Your task to perform on an android device: Search for Italian restaurants on Maps Image 0: 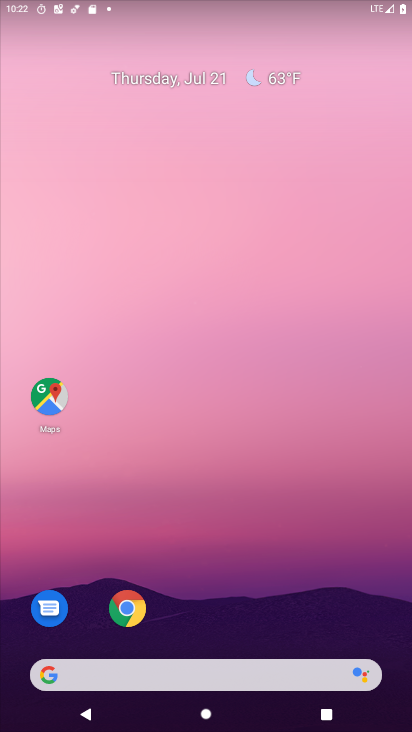
Step 0: drag from (189, 624) to (255, 146)
Your task to perform on an android device: Search for Italian restaurants on Maps Image 1: 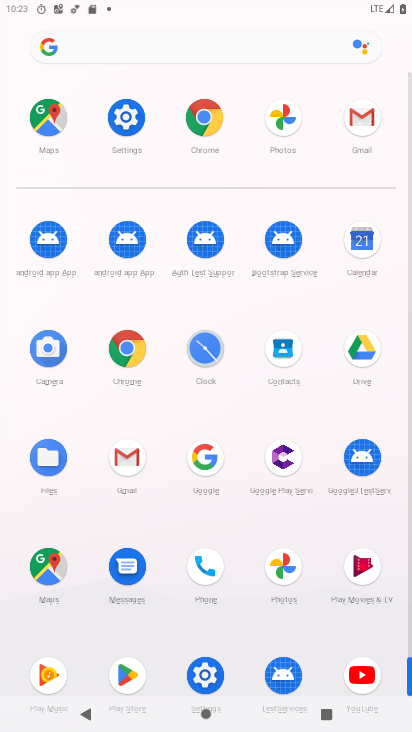
Step 1: click (48, 577)
Your task to perform on an android device: Search for Italian restaurants on Maps Image 2: 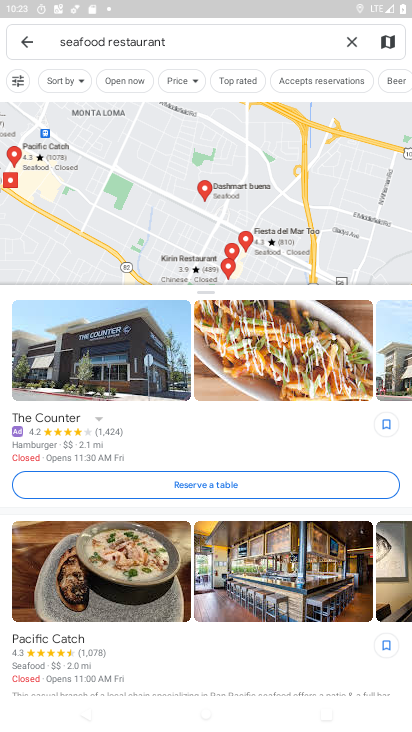
Step 2: click (346, 44)
Your task to perform on an android device: Search for Italian restaurants on Maps Image 3: 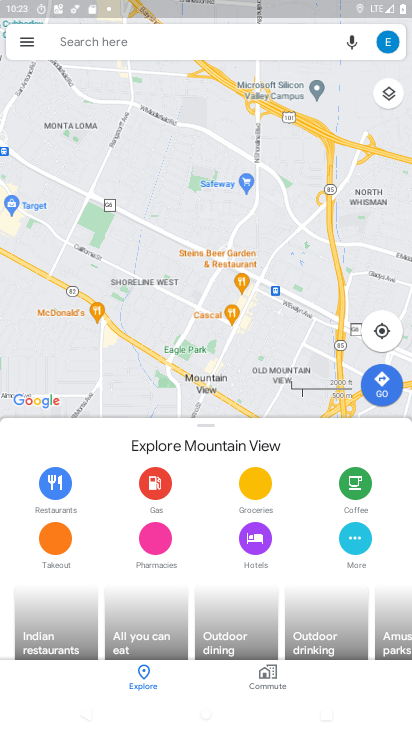
Step 3: click (262, 44)
Your task to perform on an android device: Search for Italian restaurants on Maps Image 4: 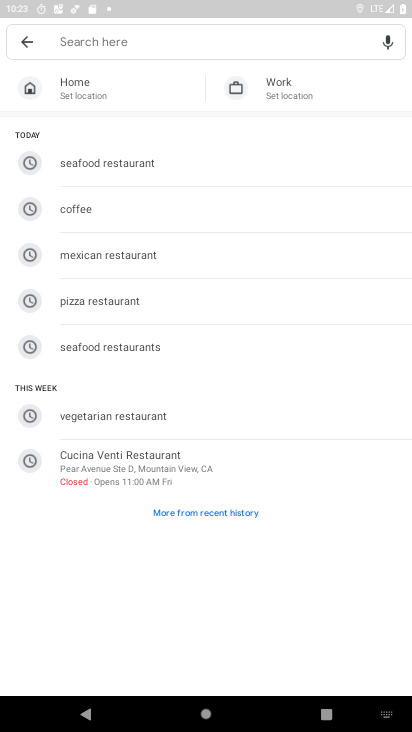
Step 4: type "italian"
Your task to perform on an android device: Search for Italian restaurants on Maps Image 5: 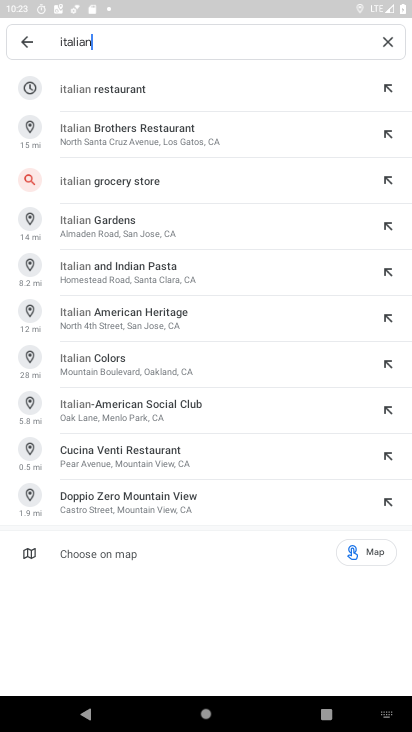
Step 5: click (131, 91)
Your task to perform on an android device: Search for Italian restaurants on Maps Image 6: 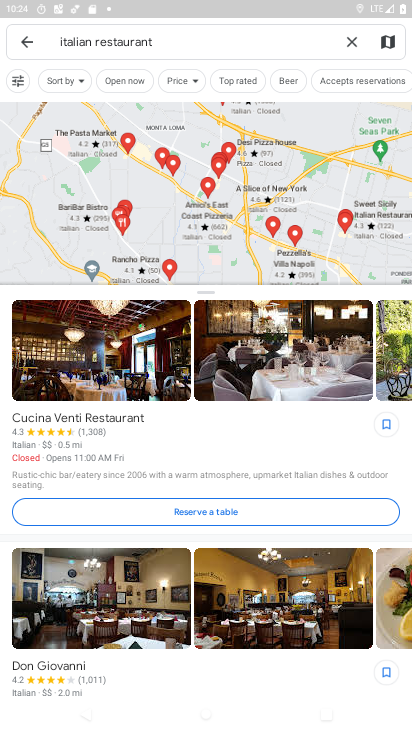
Step 6: task complete